Your task to perform on an android device: Go to location settings Image 0: 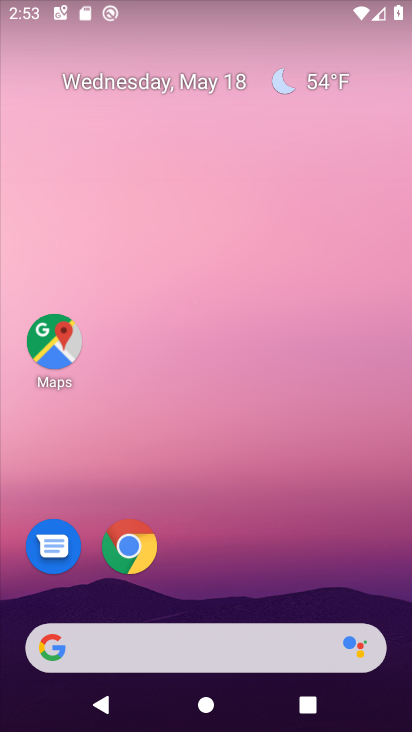
Step 0: drag from (270, 680) to (147, 128)
Your task to perform on an android device: Go to location settings Image 1: 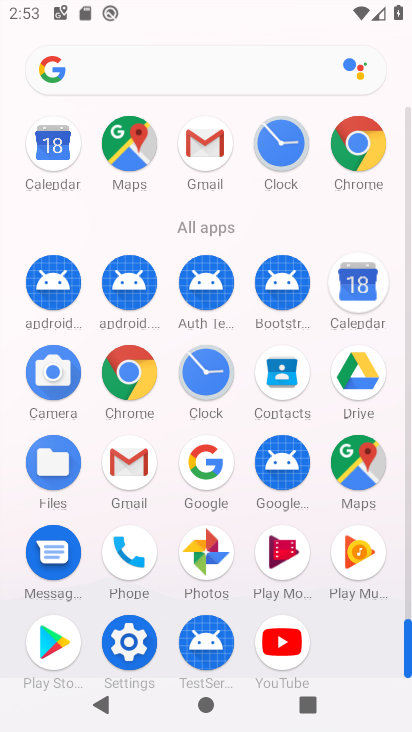
Step 1: click (118, 632)
Your task to perform on an android device: Go to location settings Image 2: 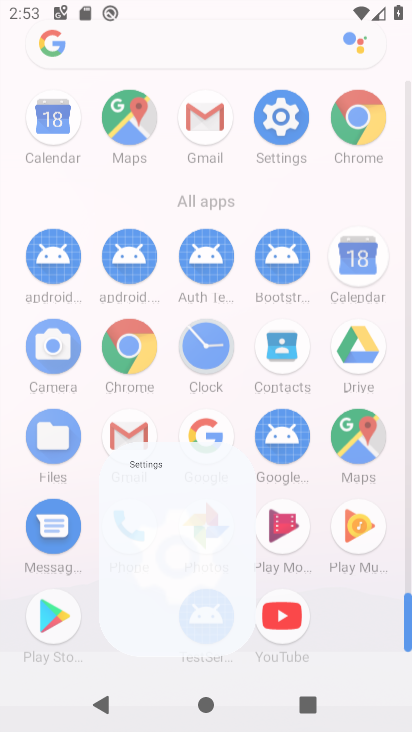
Step 2: click (118, 638)
Your task to perform on an android device: Go to location settings Image 3: 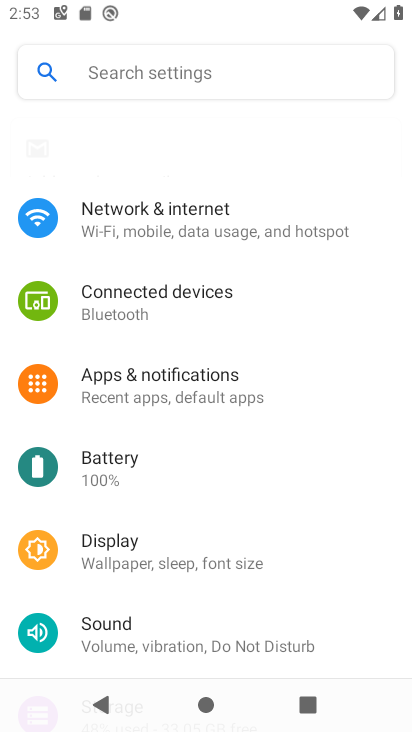
Step 3: click (118, 638)
Your task to perform on an android device: Go to location settings Image 4: 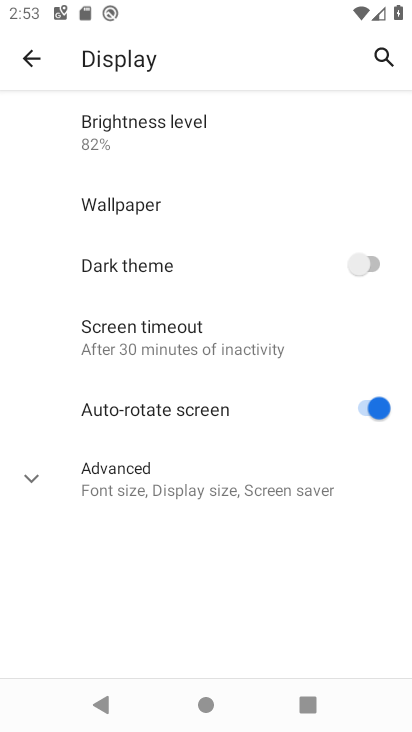
Step 4: click (20, 64)
Your task to perform on an android device: Go to location settings Image 5: 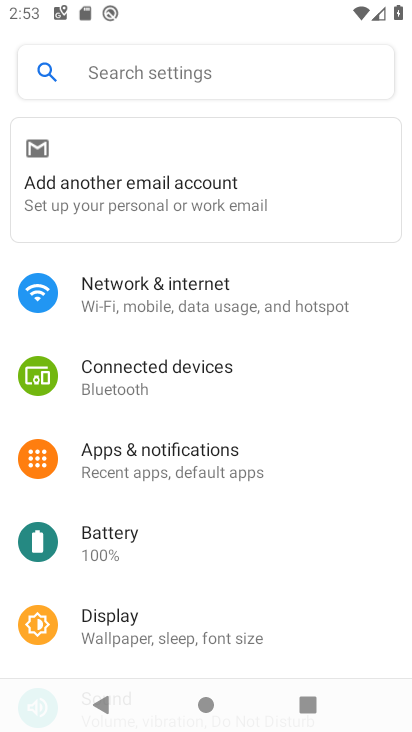
Step 5: drag from (220, 574) to (213, 186)
Your task to perform on an android device: Go to location settings Image 6: 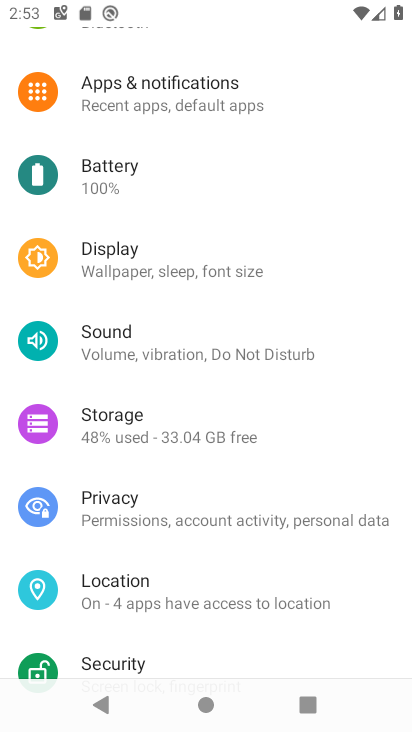
Step 6: drag from (221, 364) to (188, 133)
Your task to perform on an android device: Go to location settings Image 7: 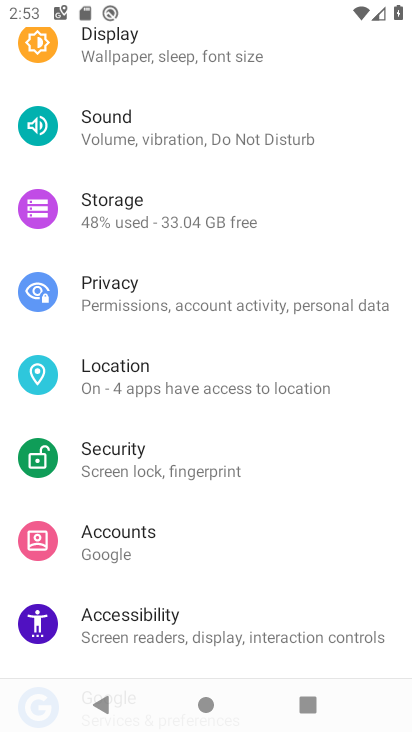
Step 7: click (152, 377)
Your task to perform on an android device: Go to location settings Image 8: 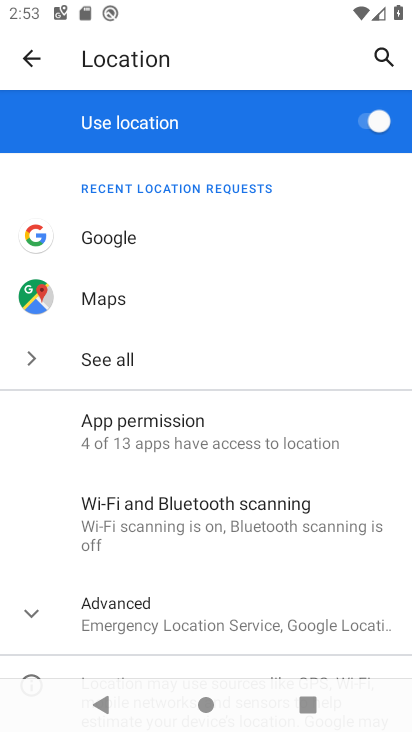
Step 8: click (139, 430)
Your task to perform on an android device: Go to location settings Image 9: 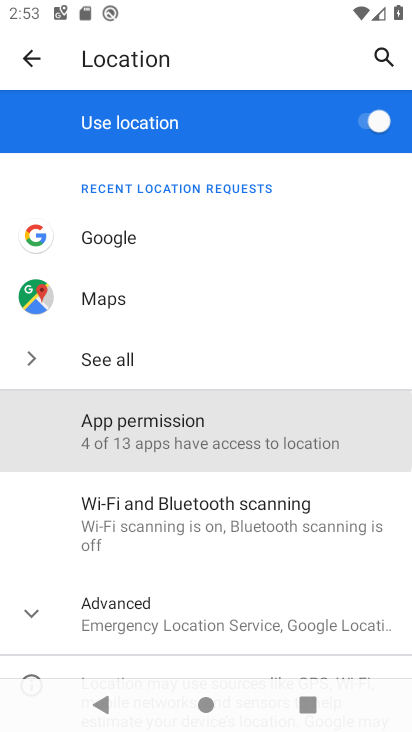
Step 9: click (140, 431)
Your task to perform on an android device: Go to location settings Image 10: 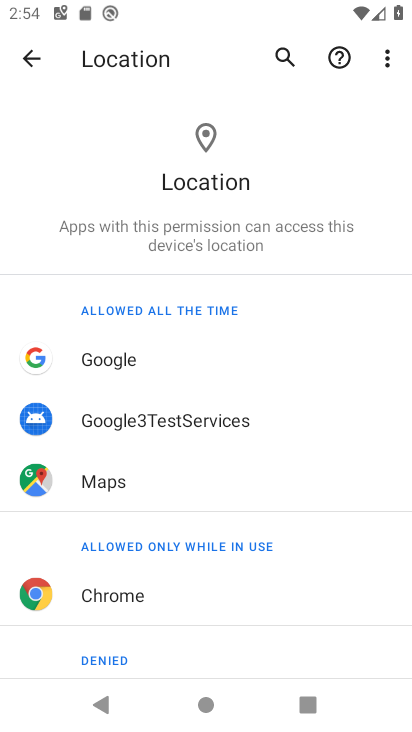
Step 10: drag from (79, 502) to (69, 262)
Your task to perform on an android device: Go to location settings Image 11: 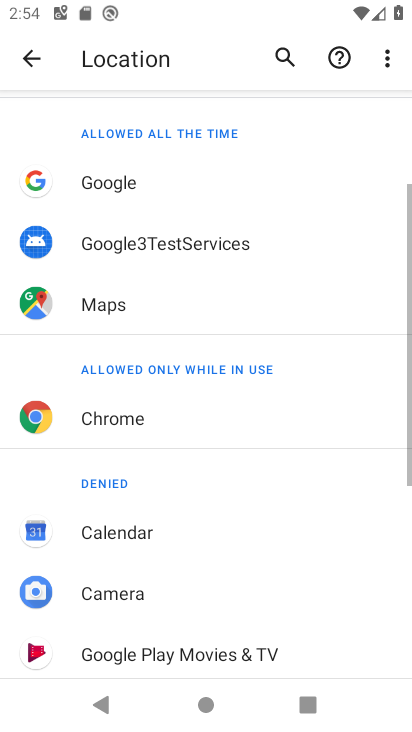
Step 11: drag from (125, 397) to (96, 158)
Your task to perform on an android device: Go to location settings Image 12: 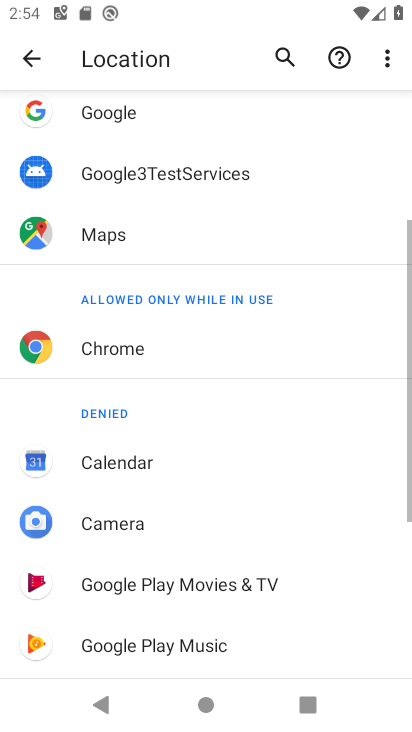
Step 12: drag from (231, 574) to (187, 168)
Your task to perform on an android device: Go to location settings Image 13: 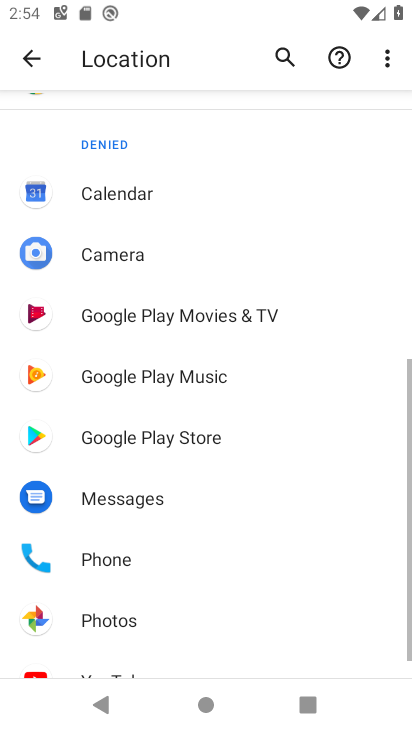
Step 13: drag from (263, 443) to (230, 140)
Your task to perform on an android device: Go to location settings Image 14: 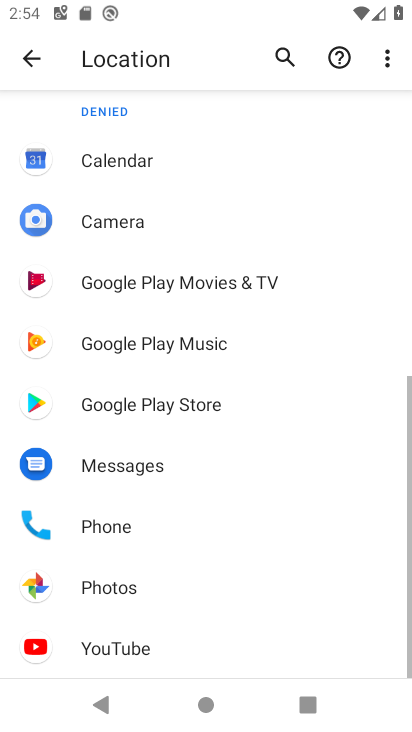
Step 14: click (291, 155)
Your task to perform on an android device: Go to location settings Image 15: 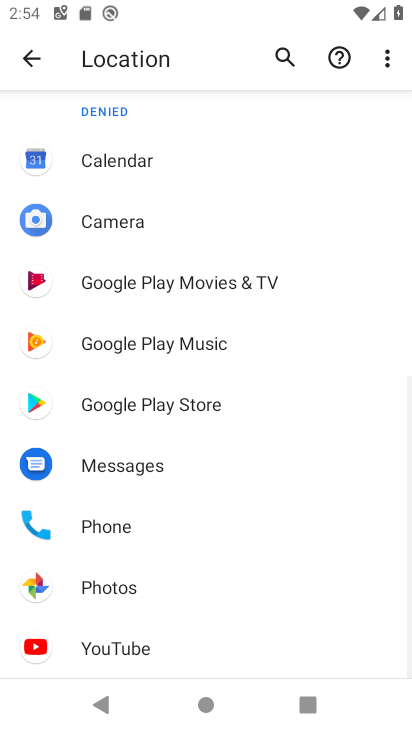
Step 15: drag from (254, 486) to (179, 196)
Your task to perform on an android device: Go to location settings Image 16: 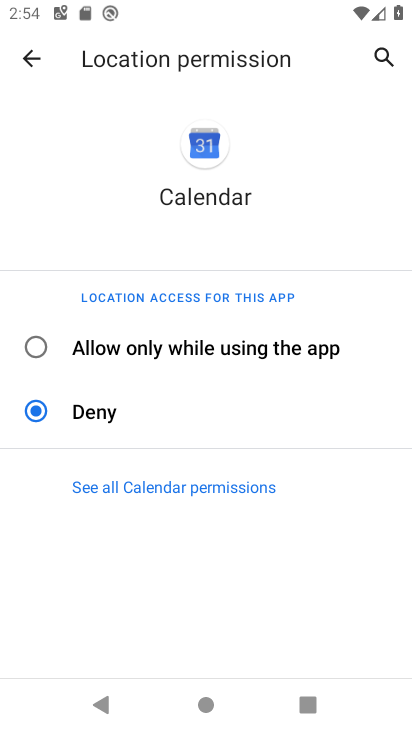
Step 16: click (31, 86)
Your task to perform on an android device: Go to location settings Image 17: 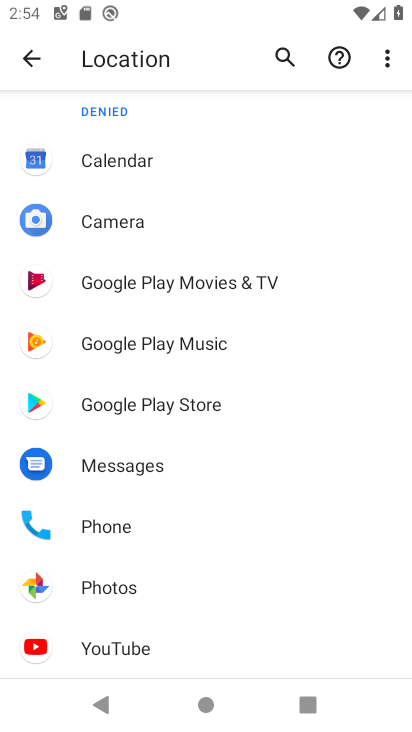
Step 17: click (15, 43)
Your task to perform on an android device: Go to location settings Image 18: 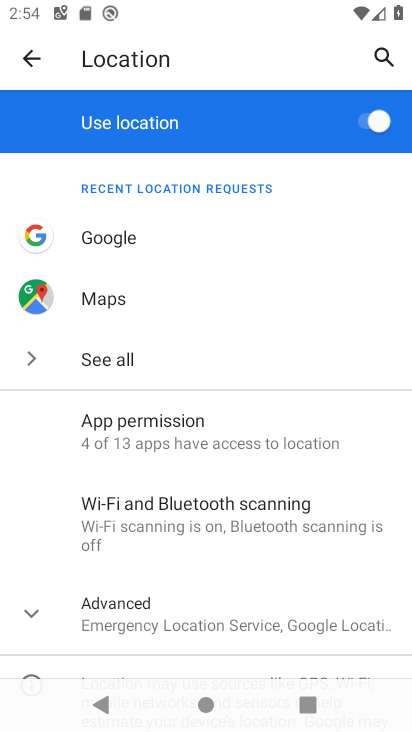
Step 18: task complete